Your task to perform on an android device: Open Chrome and go to the settings page Image 0: 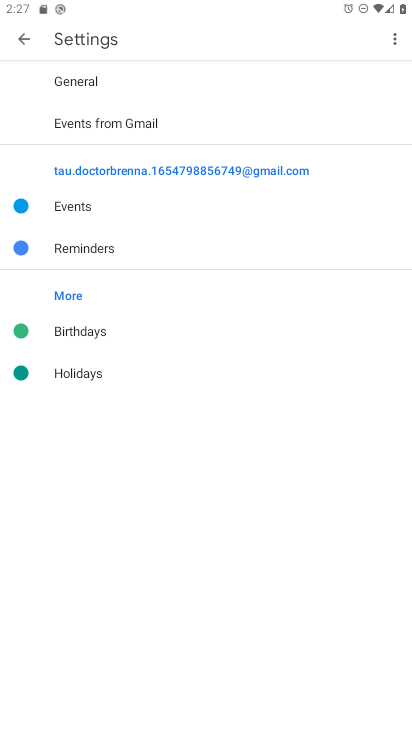
Step 0: press home button
Your task to perform on an android device: Open Chrome and go to the settings page Image 1: 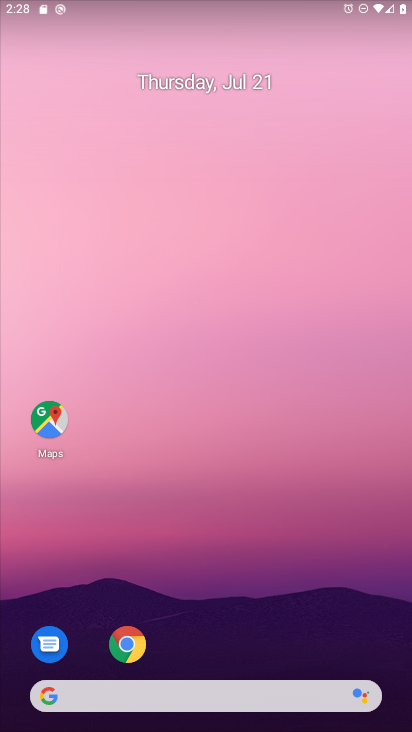
Step 1: drag from (179, 683) to (197, 329)
Your task to perform on an android device: Open Chrome and go to the settings page Image 2: 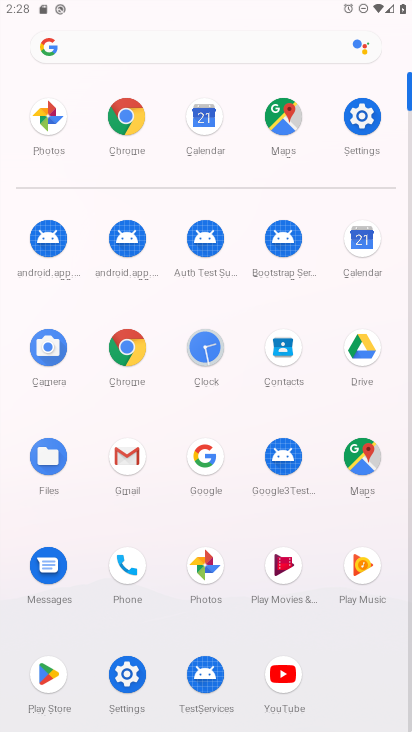
Step 2: click (123, 345)
Your task to perform on an android device: Open Chrome and go to the settings page Image 3: 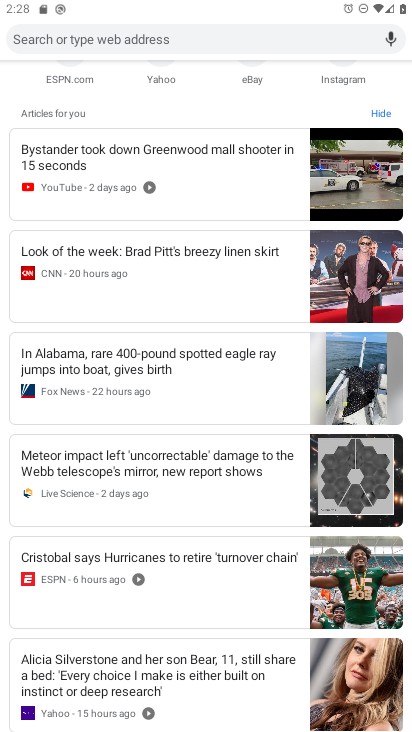
Step 3: drag from (193, 148) to (221, 528)
Your task to perform on an android device: Open Chrome and go to the settings page Image 4: 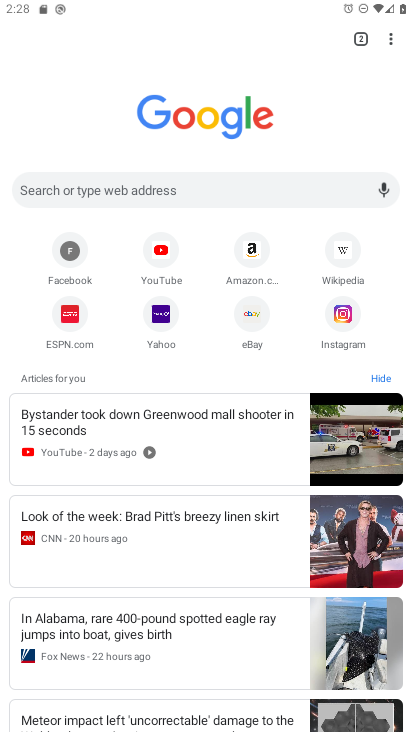
Step 4: click (387, 39)
Your task to perform on an android device: Open Chrome and go to the settings page Image 5: 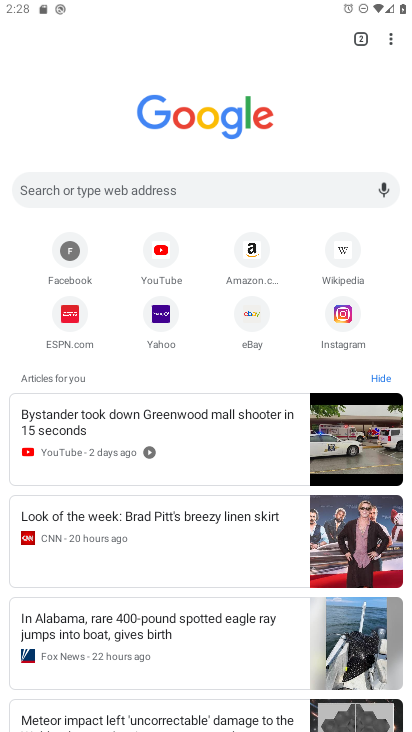
Step 5: click (387, 40)
Your task to perform on an android device: Open Chrome and go to the settings page Image 6: 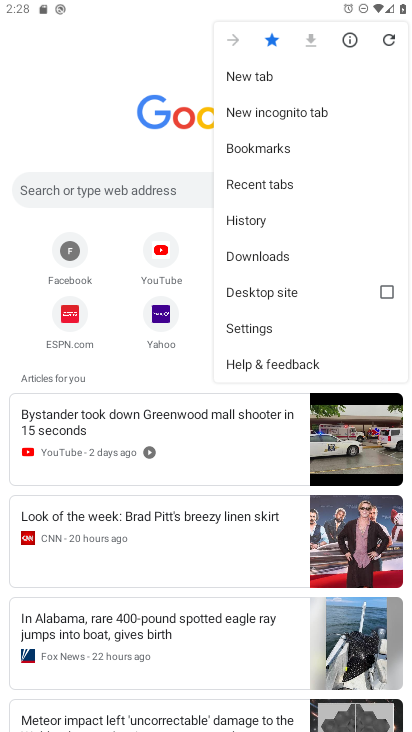
Step 6: click (265, 325)
Your task to perform on an android device: Open Chrome and go to the settings page Image 7: 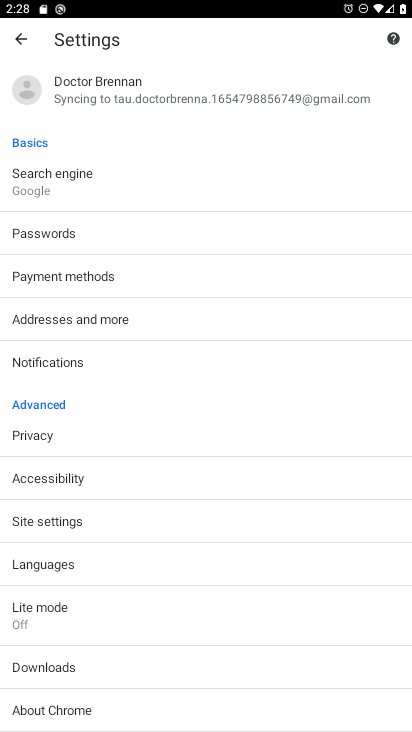
Step 7: task complete